Your task to perform on an android device: Go to Yahoo.com Image 0: 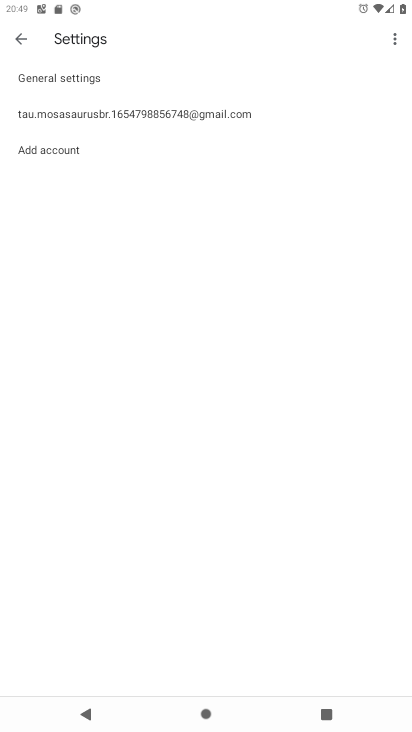
Step 0: press home button
Your task to perform on an android device: Go to Yahoo.com Image 1: 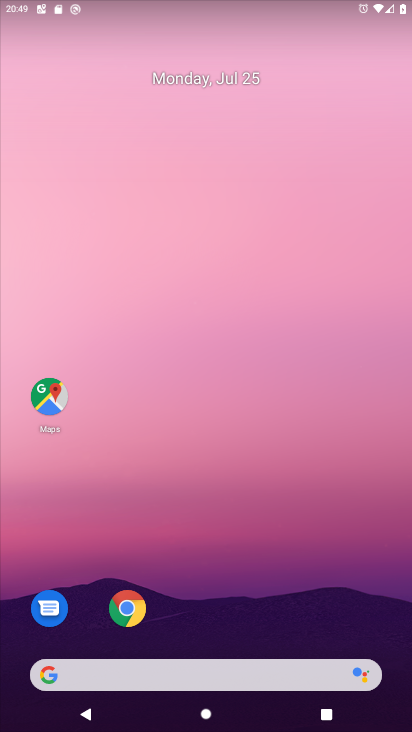
Step 1: click (135, 608)
Your task to perform on an android device: Go to Yahoo.com Image 2: 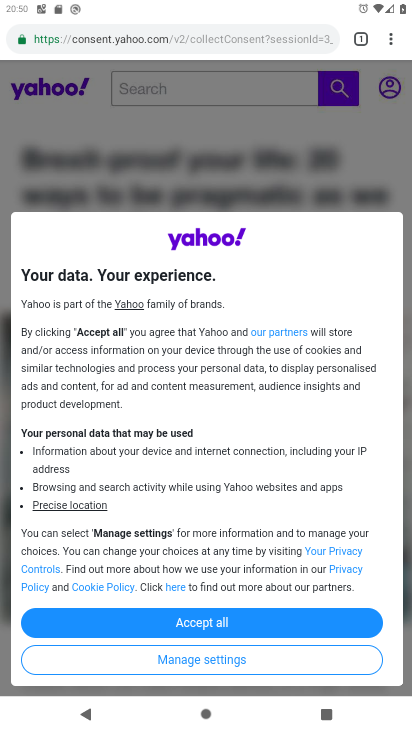
Step 2: task complete